Your task to perform on an android device: Go to network settings Image 0: 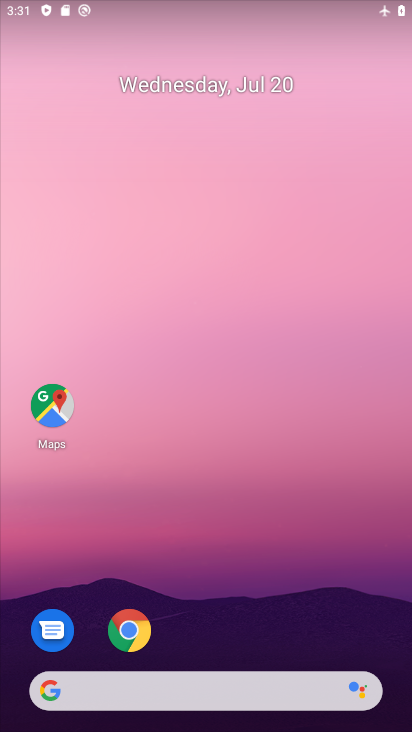
Step 0: press home button
Your task to perform on an android device: Go to network settings Image 1: 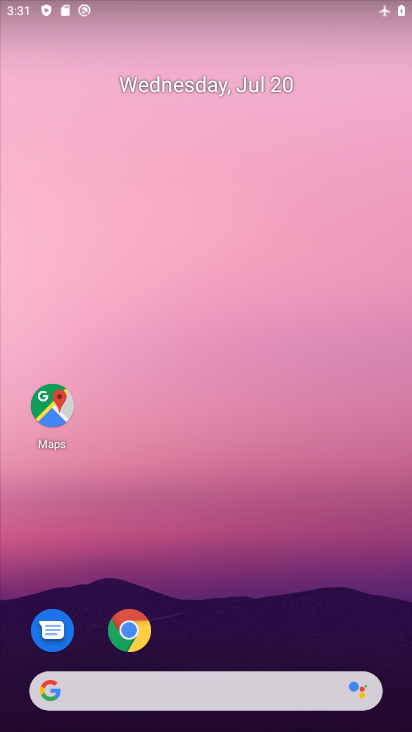
Step 1: drag from (201, 635) to (236, 26)
Your task to perform on an android device: Go to network settings Image 2: 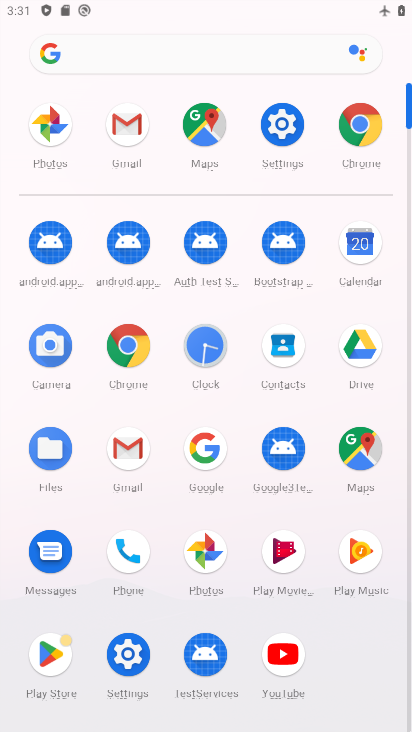
Step 2: click (277, 134)
Your task to perform on an android device: Go to network settings Image 3: 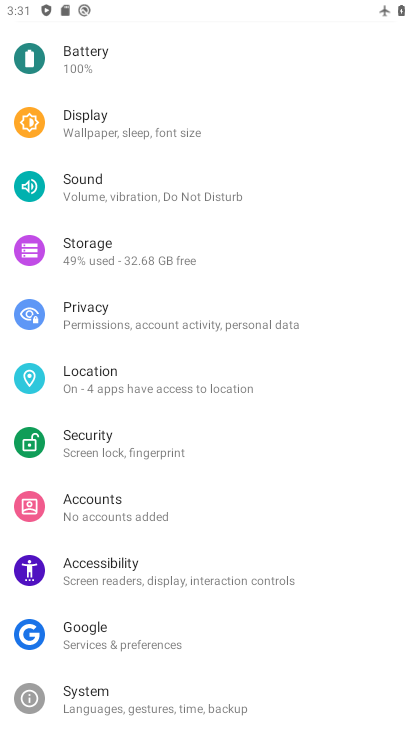
Step 3: drag from (202, 104) to (264, 676)
Your task to perform on an android device: Go to network settings Image 4: 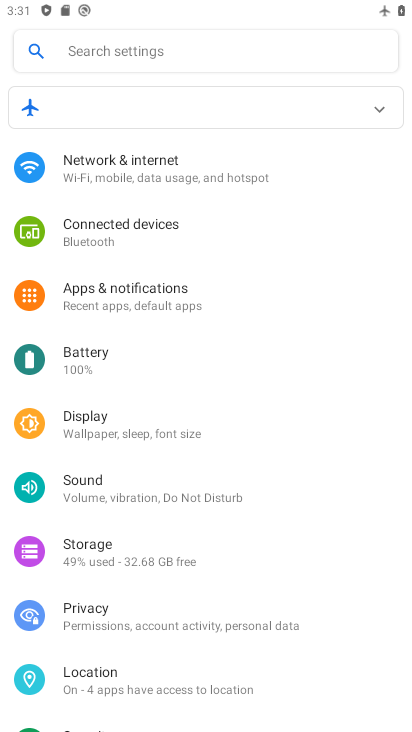
Step 4: click (102, 168)
Your task to perform on an android device: Go to network settings Image 5: 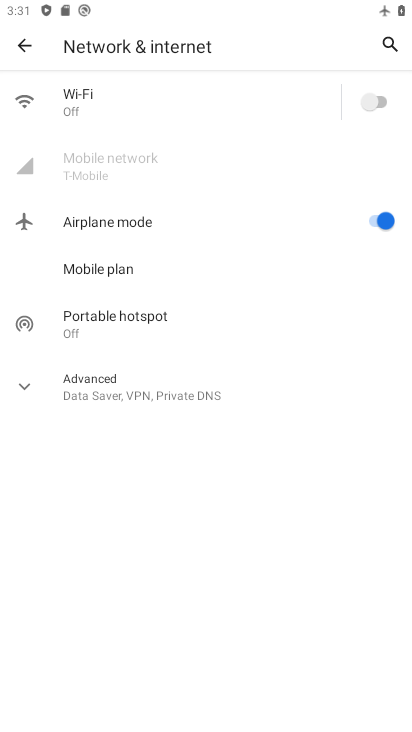
Step 5: task complete